Your task to perform on an android device: turn on data saver in the chrome app Image 0: 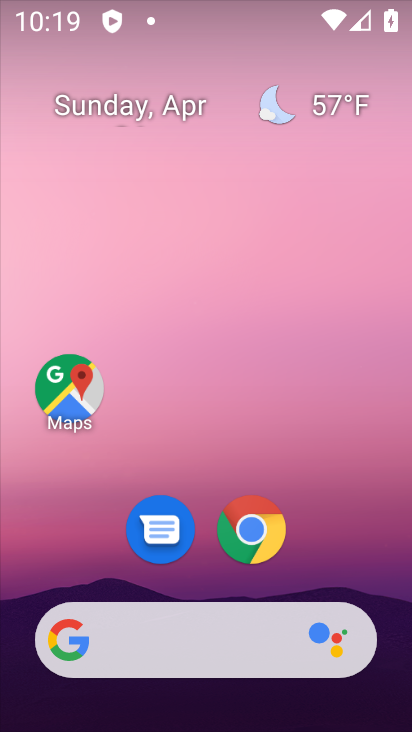
Step 0: click (258, 520)
Your task to perform on an android device: turn on data saver in the chrome app Image 1: 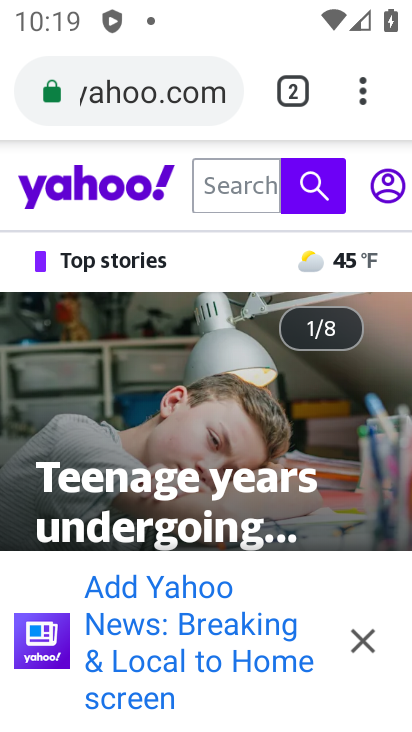
Step 1: click (361, 93)
Your task to perform on an android device: turn on data saver in the chrome app Image 2: 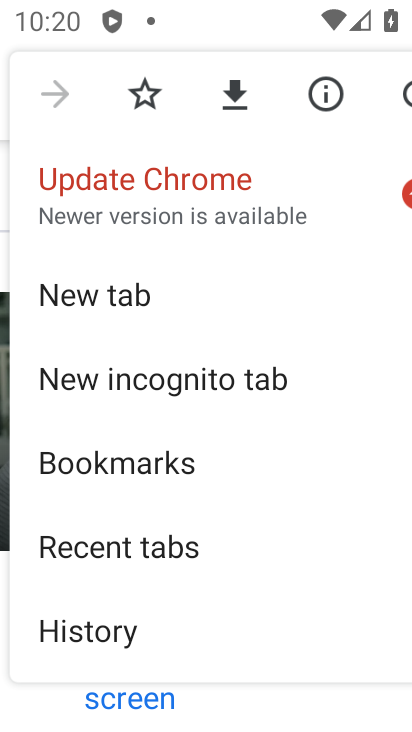
Step 2: drag from (241, 619) to (237, 137)
Your task to perform on an android device: turn on data saver in the chrome app Image 3: 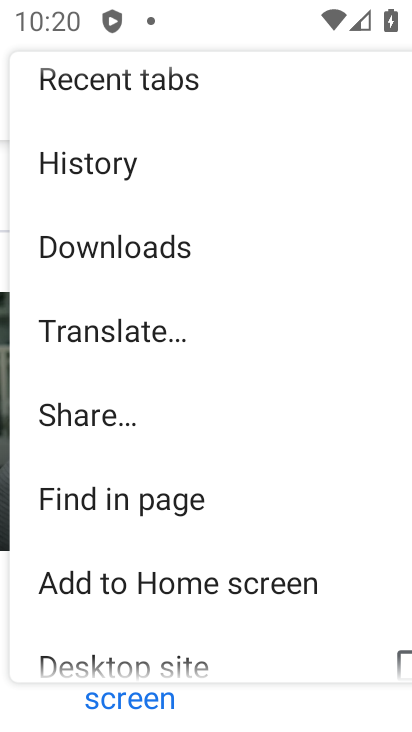
Step 3: drag from (234, 591) to (244, 89)
Your task to perform on an android device: turn on data saver in the chrome app Image 4: 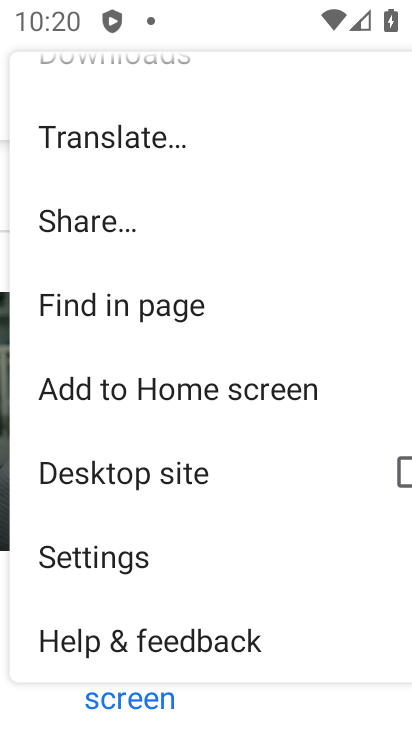
Step 4: click (121, 555)
Your task to perform on an android device: turn on data saver in the chrome app Image 5: 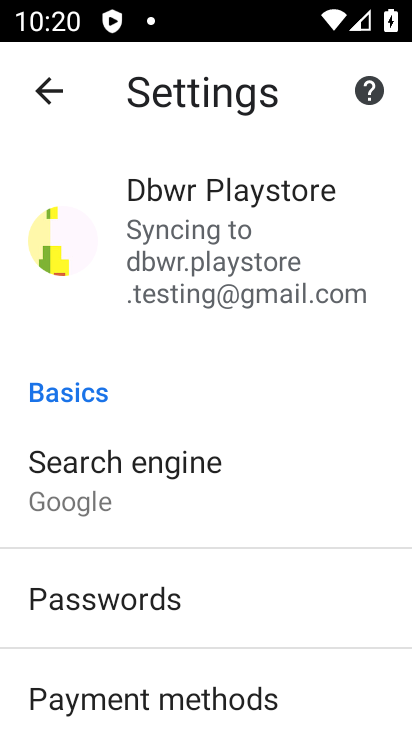
Step 5: drag from (298, 636) to (222, 101)
Your task to perform on an android device: turn on data saver in the chrome app Image 6: 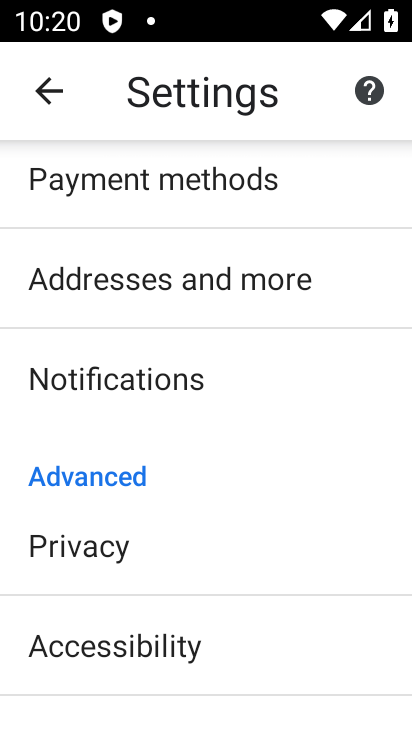
Step 6: drag from (241, 645) to (176, 190)
Your task to perform on an android device: turn on data saver in the chrome app Image 7: 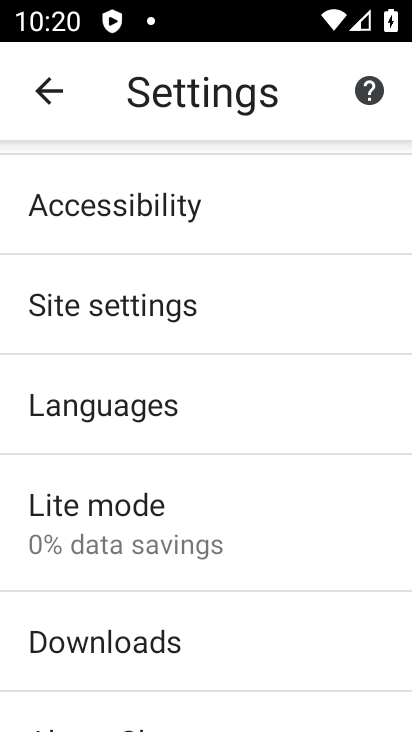
Step 7: click (168, 521)
Your task to perform on an android device: turn on data saver in the chrome app Image 8: 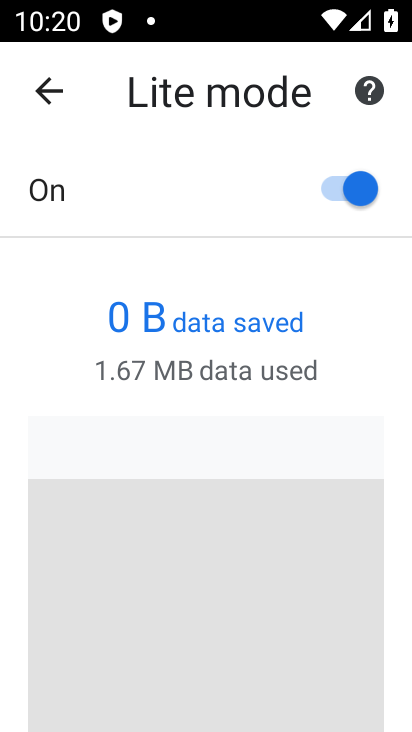
Step 8: task complete